Your task to perform on an android device: Go to Wikipedia Image 0: 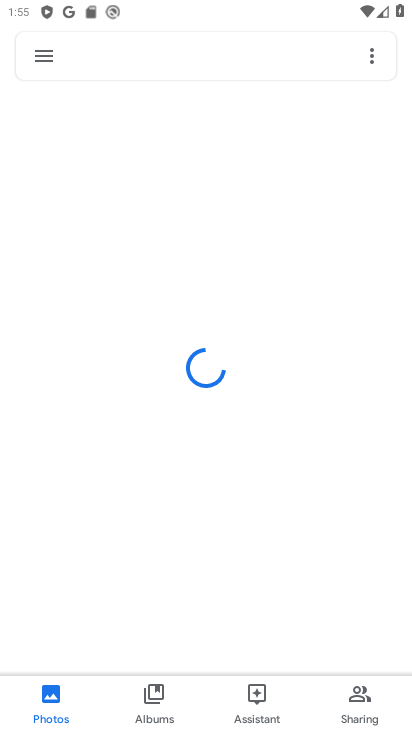
Step 0: press home button
Your task to perform on an android device: Go to Wikipedia Image 1: 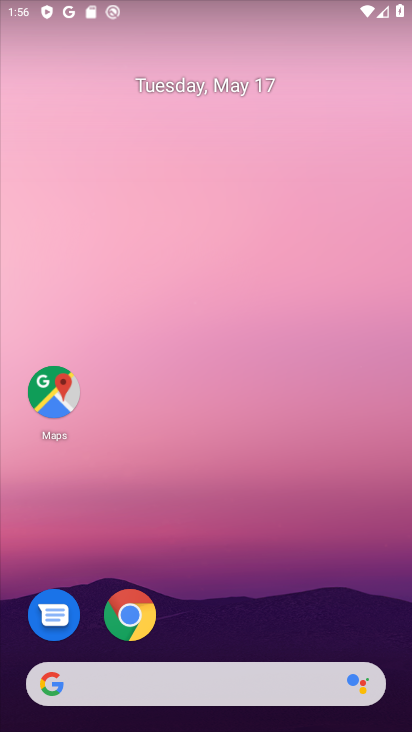
Step 1: drag from (316, 600) to (271, 8)
Your task to perform on an android device: Go to Wikipedia Image 2: 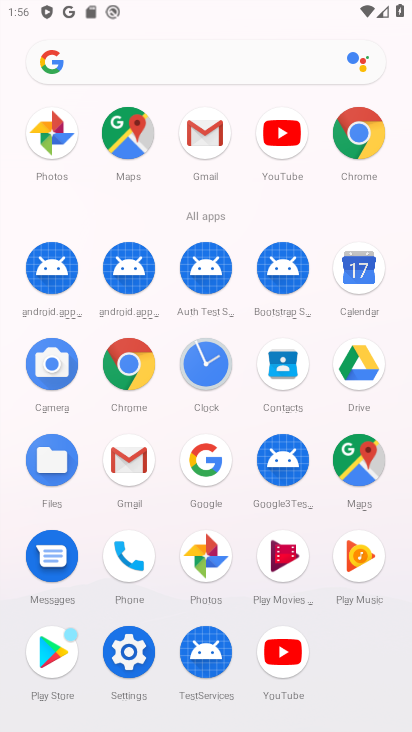
Step 2: click (379, 138)
Your task to perform on an android device: Go to Wikipedia Image 3: 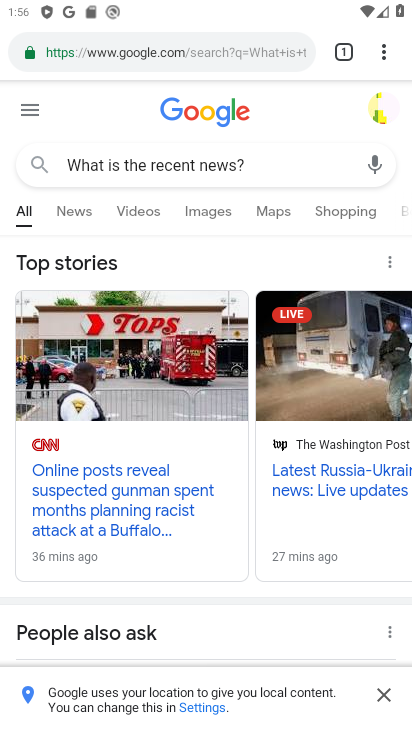
Step 3: click (258, 42)
Your task to perform on an android device: Go to Wikipedia Image 4: 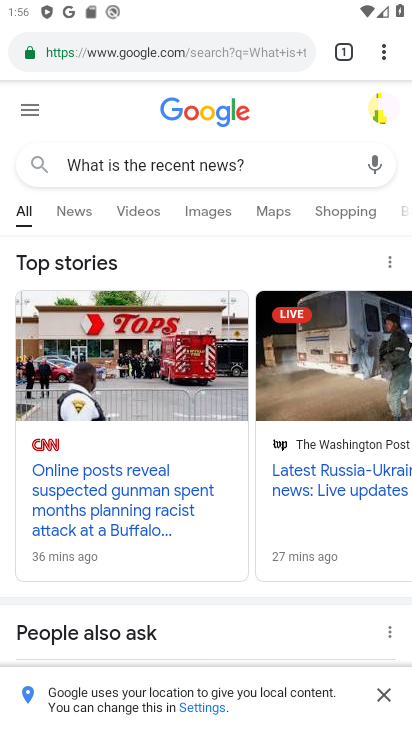
Step 4: click (258, 42)
Your task to perform on an android device: Go to Wikipedia Image 5: 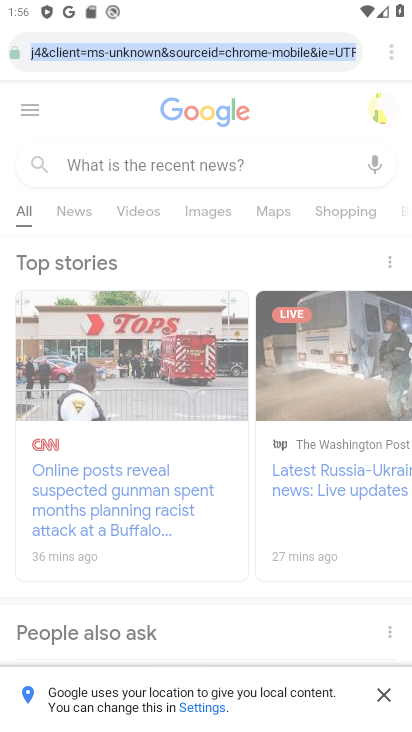
Step 5: click (258, 42)
Your task to perform on an android device: Go to Wikipedia Image 6: 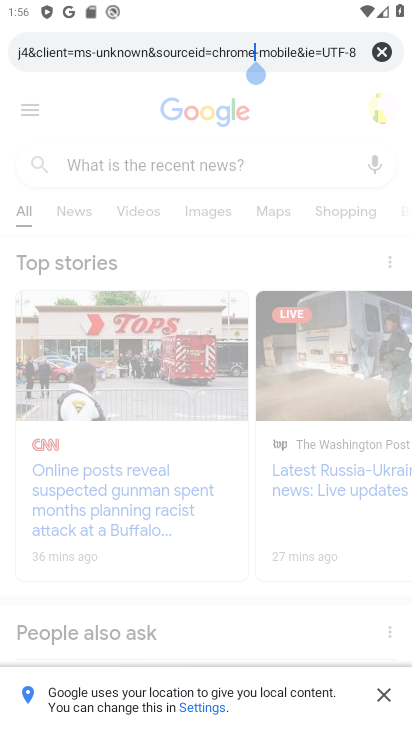
Step 6: click (258, 42)
Your task to perform on an android device: Go to Wikipedia Image 7: 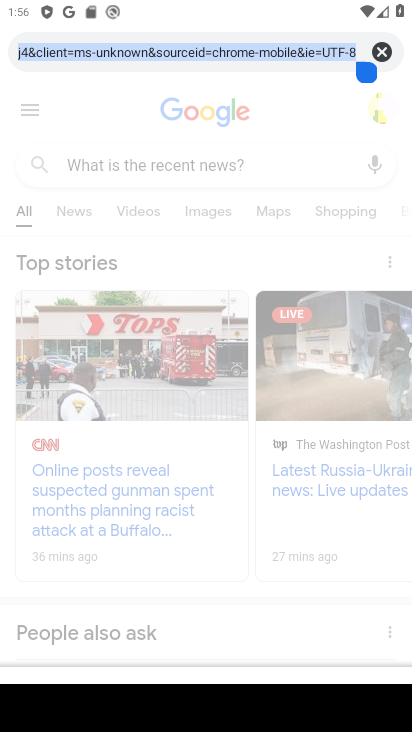
Step 7: click (258, 42)
Your task to perform on an android device: Go to Wikipedia Image 8: 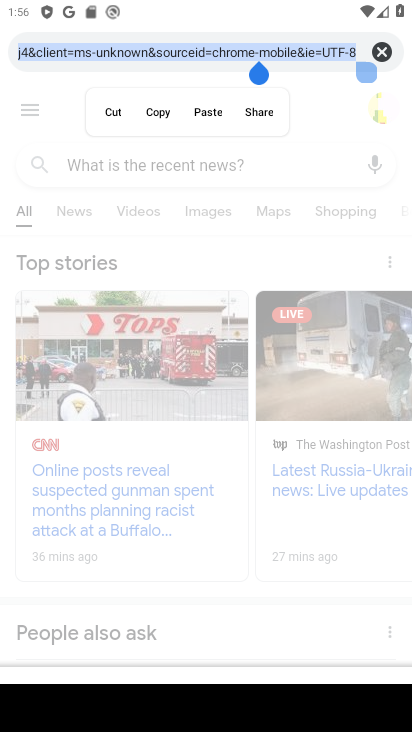
Step 8: click (258, 42)
Your task to perform on an android device: Go to Wikipedia Image 9: 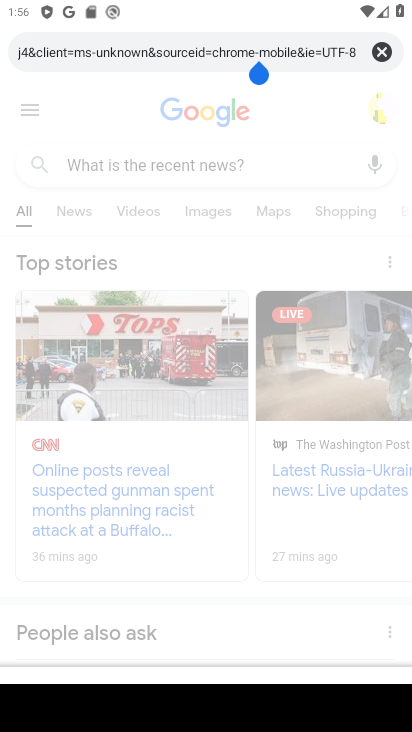
Step 9: click (384, 51)
Your task to perform on an android device: Go to Wikipedia Image 10: 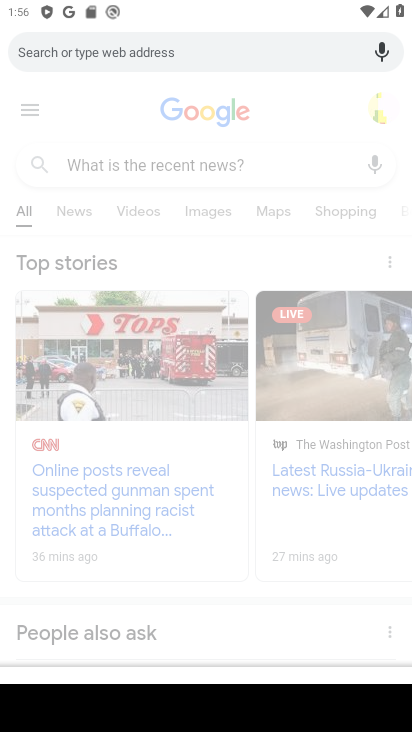
Step 10: click (234, 57)
Your task to perform on an android device: Go to Wikipedia Image 11: 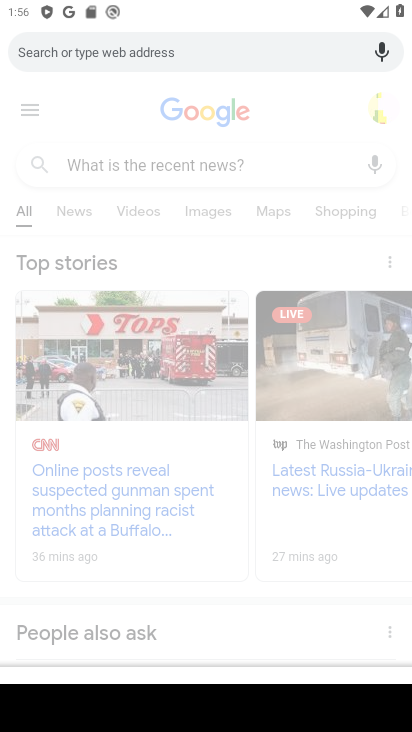
Step 11: type "Wikipedia"
Your task to perform on an android device: Go to Wikipedia Image 12: 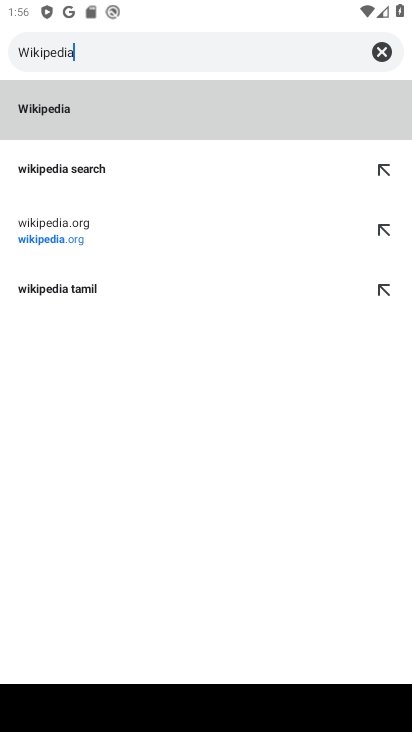
Step 12: click (129, 101)
Your task to perform on an android device: Go to Wikipedia Image 13: 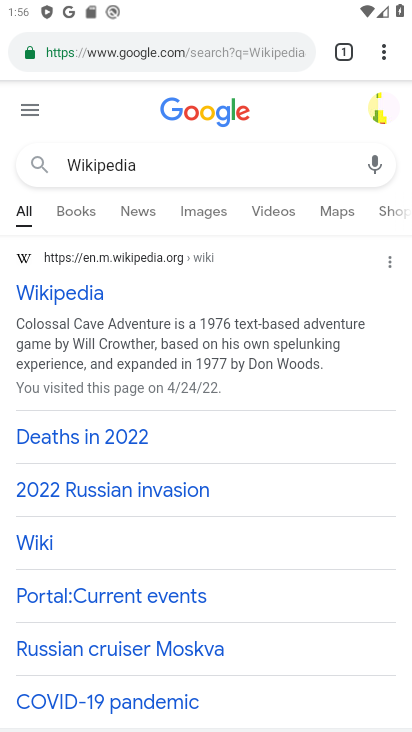
Step 13: click (108, 285)
Your task to perform on an android device: Go to Wikipedia Image 14: 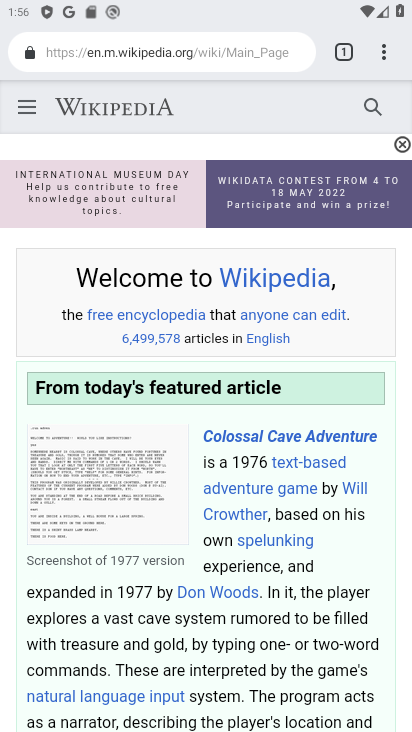
Step 14: task complete